Your task to perform on an android device: toggle pop-ups in chrome Image 0: 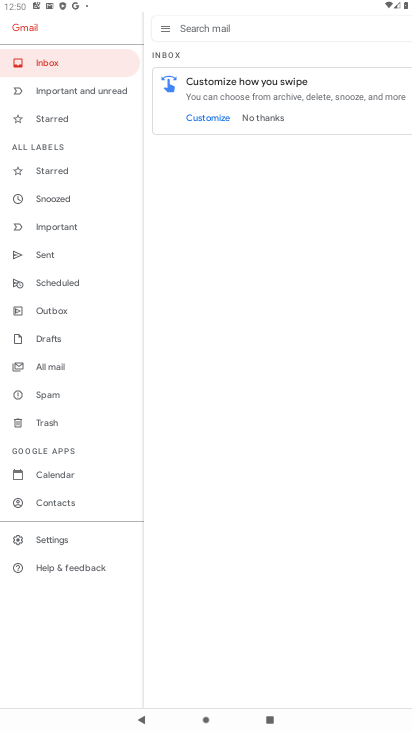
Step 0: press home button
Your task to perform on an android device: toggle pop-ups in chrome Image 1: 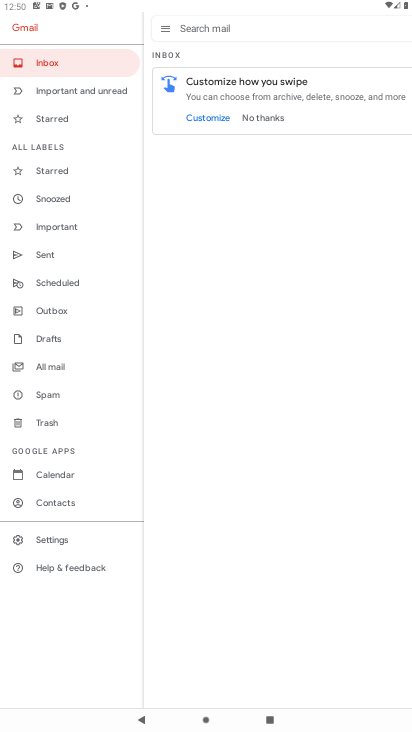
Step 1: drag from (383, 647) to (225, 0)
Your task to perform on an android device: toggle pop-ups in chrome Image 2: 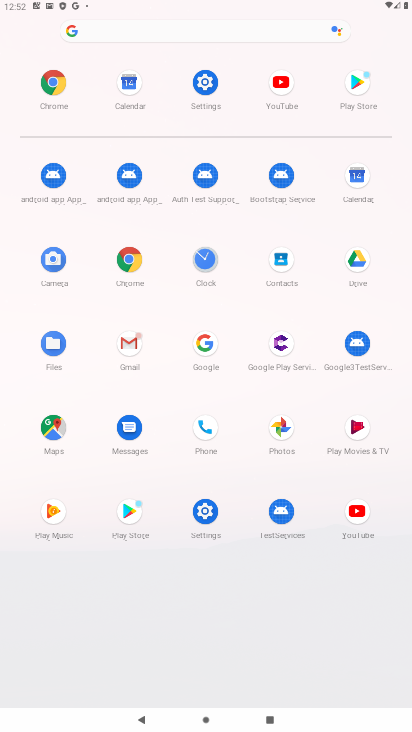
Step 2: click (115, 259)
Your task to perform on an android device: toggle pop-ups in chrome Image 3: 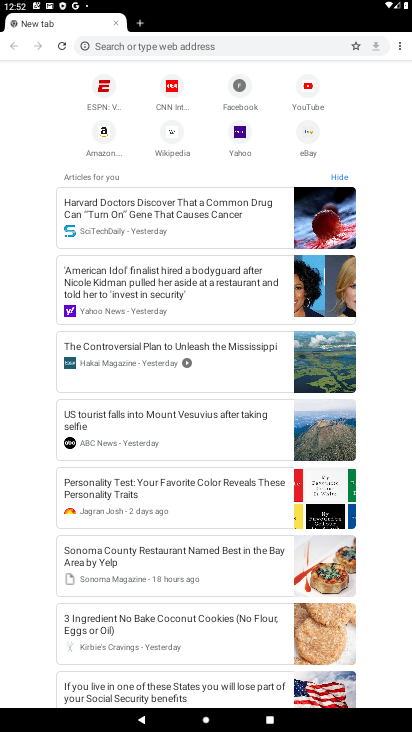
Step 3: click (400, 47)
Your task to perform on an android device: toggle pop-ups in chrome Image 4: 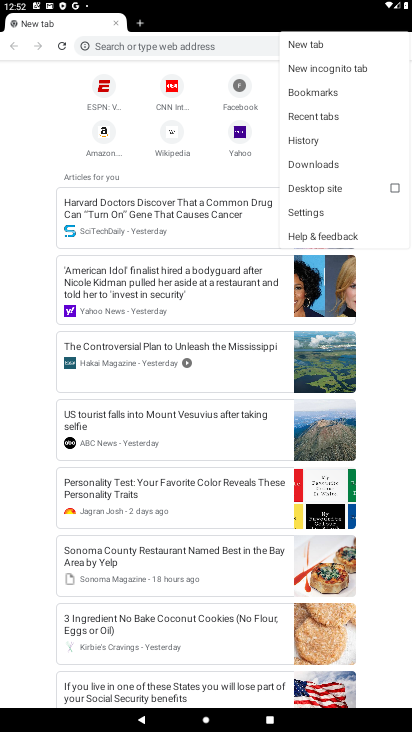
Step 4: click (313, 207)
Your task to perform on an android device: toggle pop-ups in chrome Image 5: 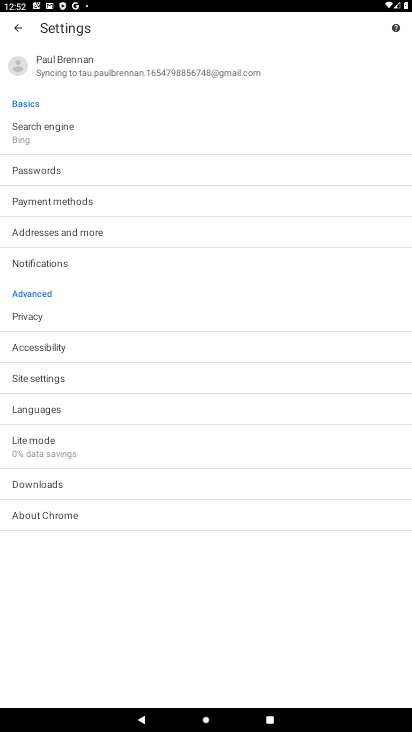
Step 5: click (36, 372)
Your task to perform on an android device: toggle pop-ups in chrome Image 6: 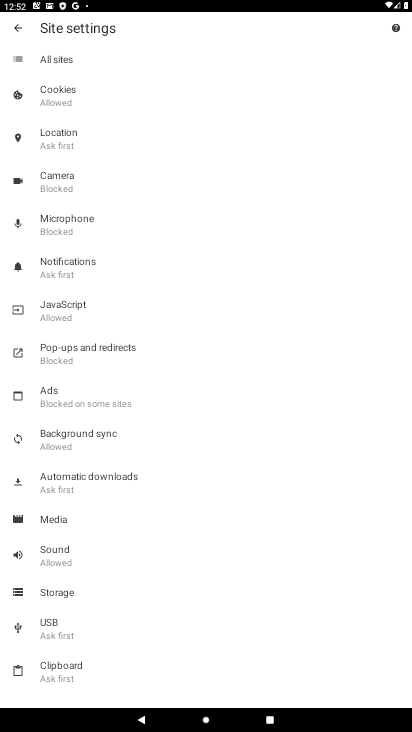
Step 6: click (76, 361)
Your task to perform on an android device: toggle pop-ups in chrome Image 7: 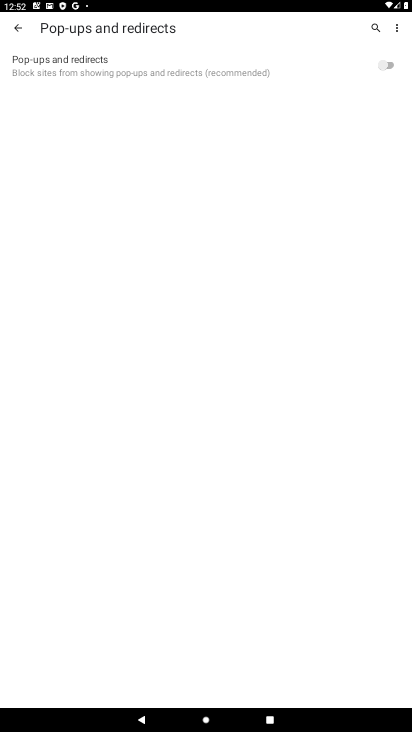
Step 7: click (388, 69)
Your task to perform on an android device: toggle pop-ups in chrome Image 8: 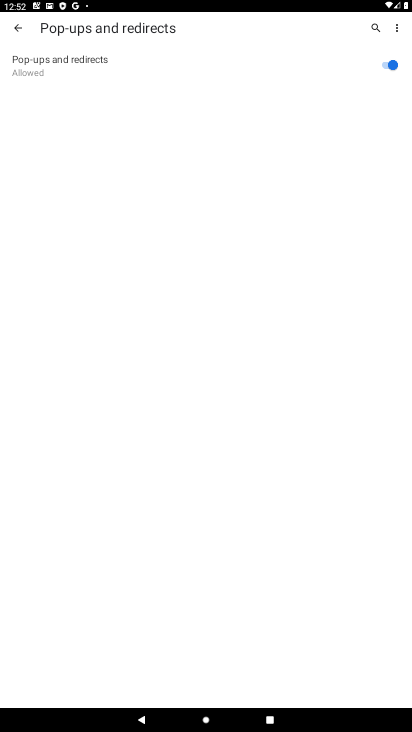
Step 8: task complete